Your task to perform on an android device: toggle notification dots Image 0: 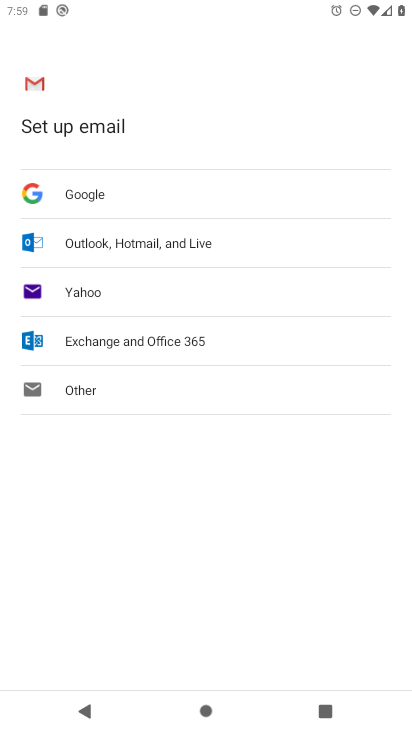
Step 0: click (137, 592)
Your task to perform on an android device: toggle notification dots Image 1: 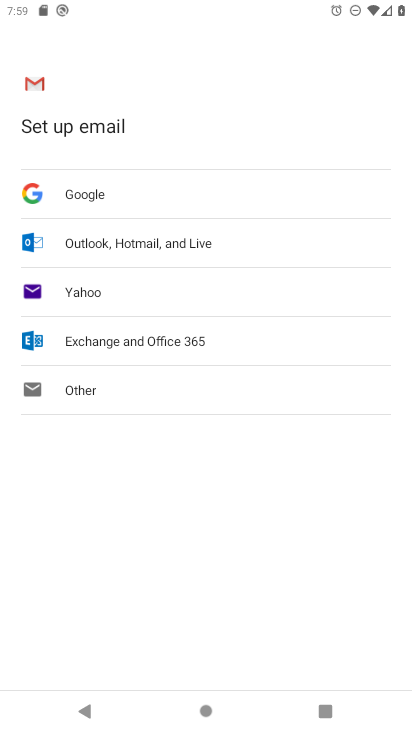
Step 1: press home button
Your task to perform on an android device: toggle notification dots Image 2: 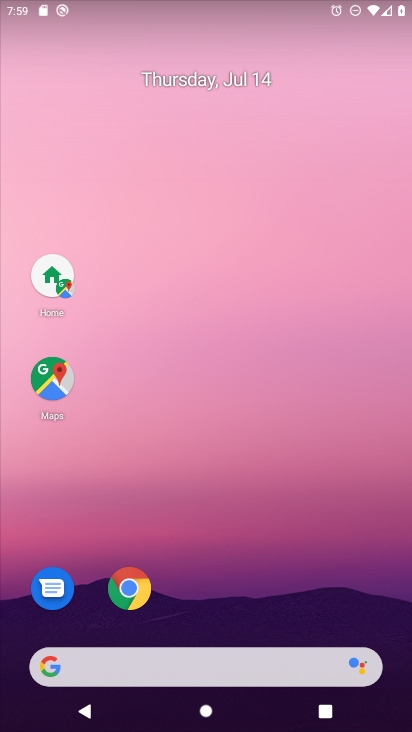
Step 2: drag from (30, 702) to (229, 218)
Your task to perform on an android device: toggle notification dots Image 3: 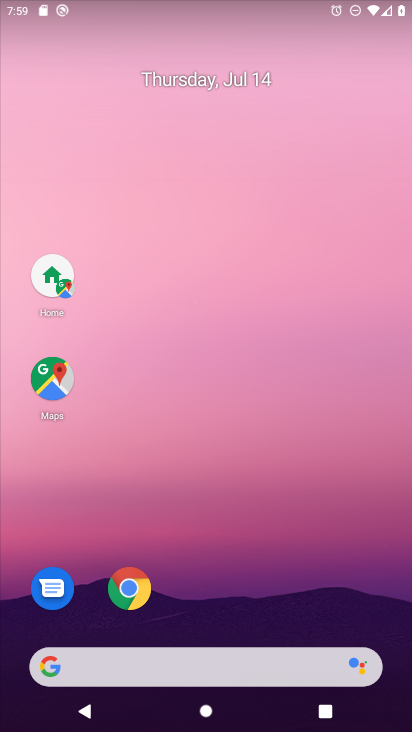
Step 3: drag from (82, 580) to (338, 44)
Your task to perform on an android device: toggle notification dots Image 4: 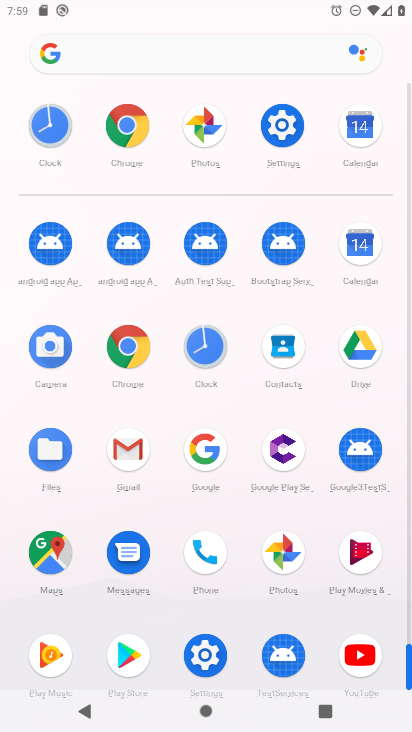
Step 4: click (200, 648)
Your task to perform on an android device: toggle notification dots Image 5: 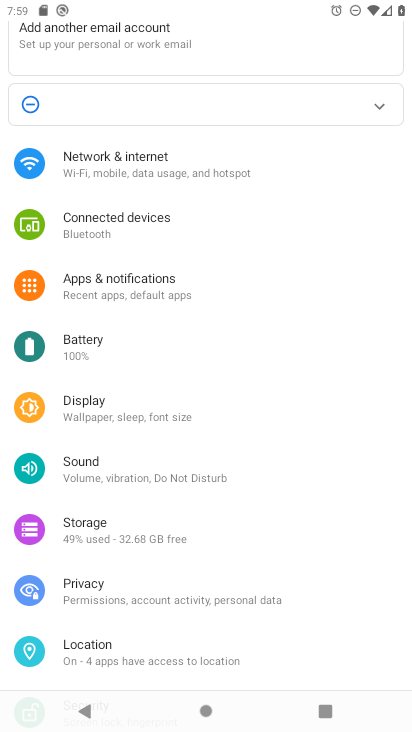
Step 5: click (152, 288)
Your task to perform on an android device: toggle notification dots Image 6: 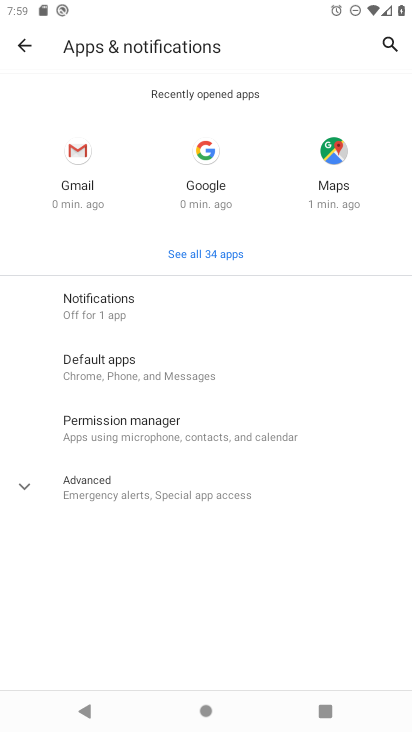
Step 6: click (127, 311)
Your task to perform on an android device: toggle notification dots Image 7: 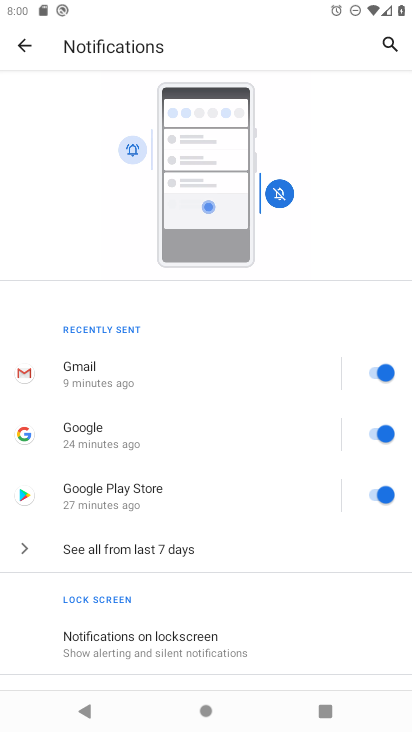
Step 7: drag from (227, 627) to (270, 372)
Your task to perform on an android device: toggle notification dots Image 8: 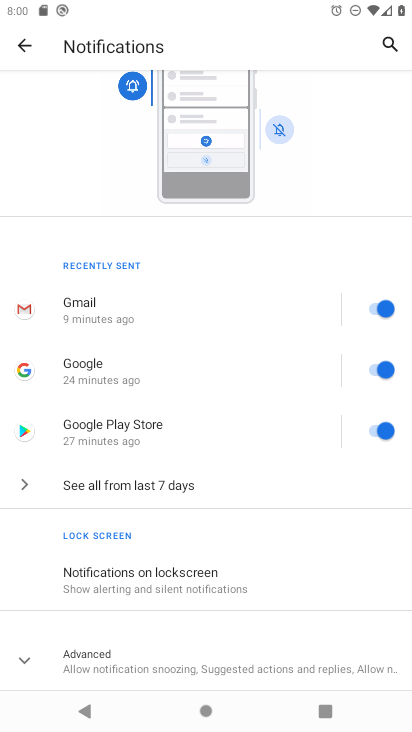
Step 8: click (153, 659)
Your task to perform on an android device: toggle notification dots Image 9: 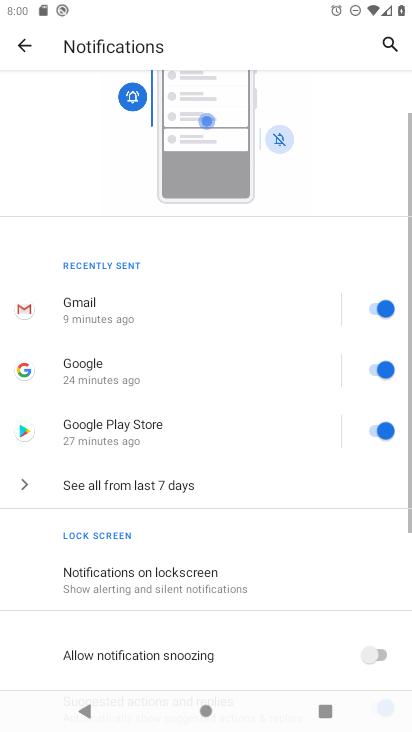
Step 9: drag from (167, 636) to (180, 307)
Your task to perform on an android device: toggle notification dots Image 10: 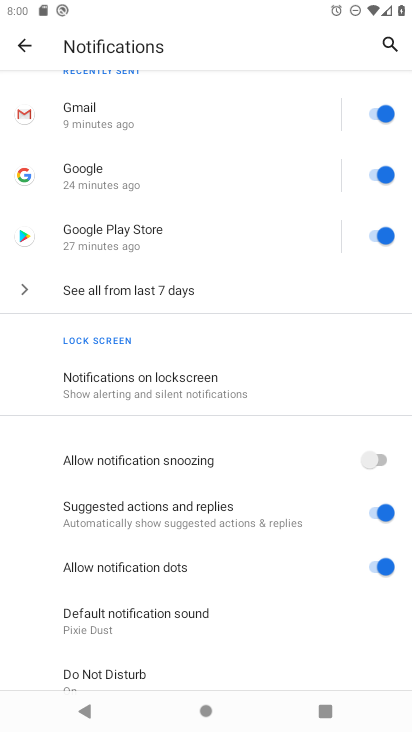
Step 10: click (88, 556)
Your task to perform on an android device: toggle notification dots Image 11: 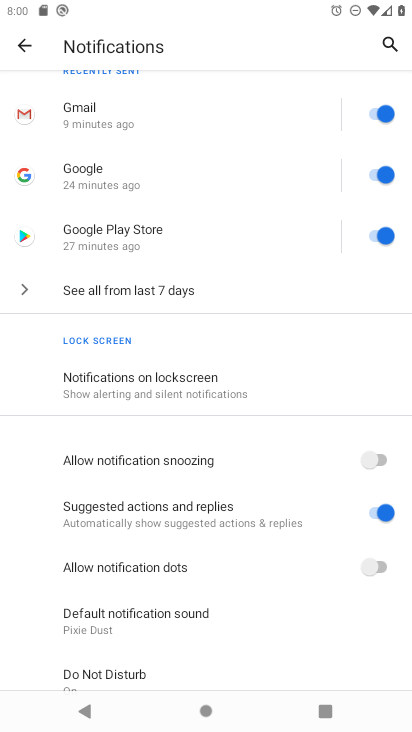
Step 11: task complete